Your task to perform on an android device: What's on my calendar today? Image 0: 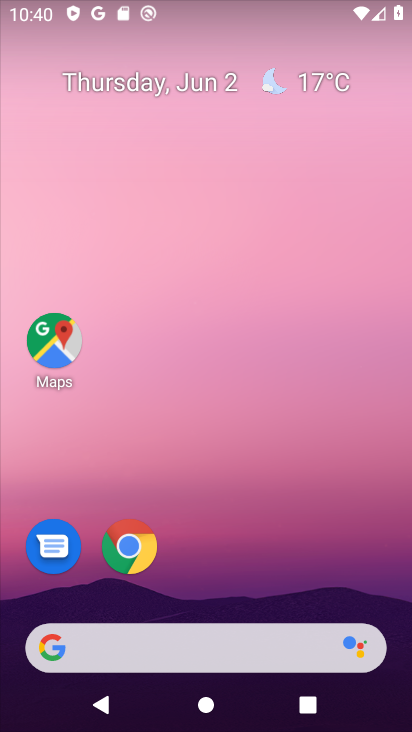
Step 0: drag from (232, 344) to (198, 20)
Your task to perform on an android device: What's on my calendar today? Image 1: 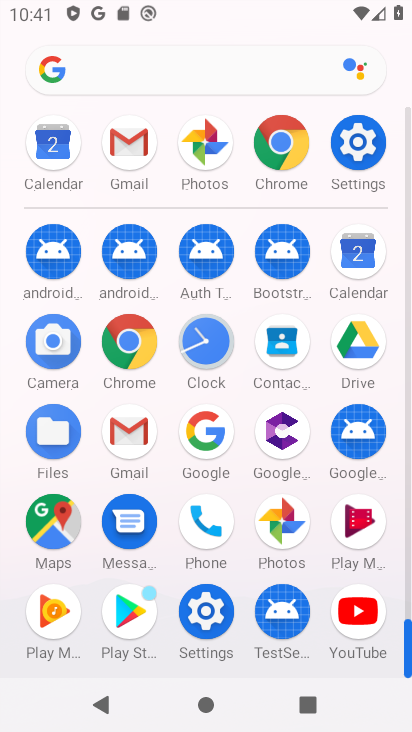
Step 1: drag from (9, 505) to (16, 181)
Your task to perform on an android device: What's on my calendar today? Image 2: 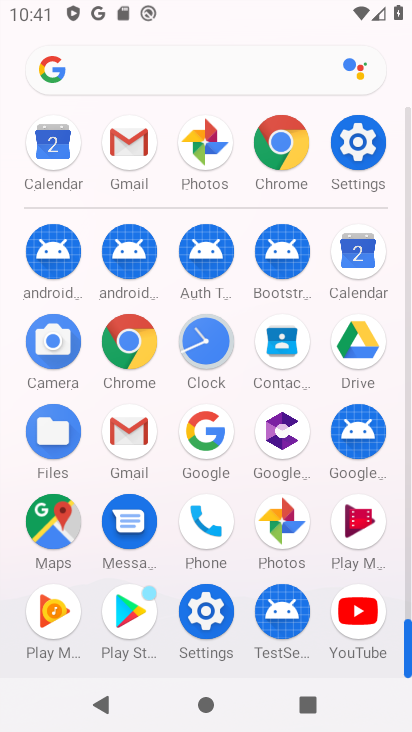
Step 2: click (355, 246)
Your task to perform on an android device: What's on my calendar today? Image 3: 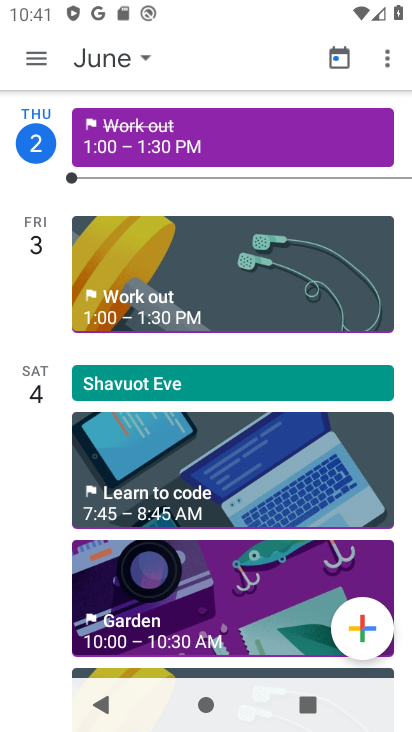
Step 3: task complete